Your task to perform on an android device: set an alarm Image 0: 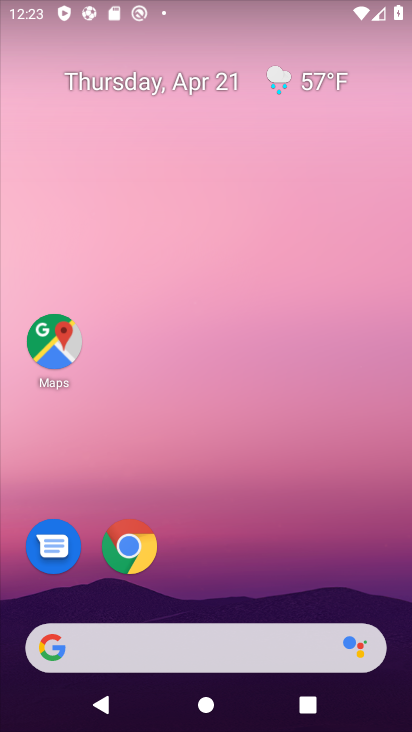
Step 0: drag from (292, 564) to (253, 108)
Your task to perform on an android device: set an alarm Image 1: 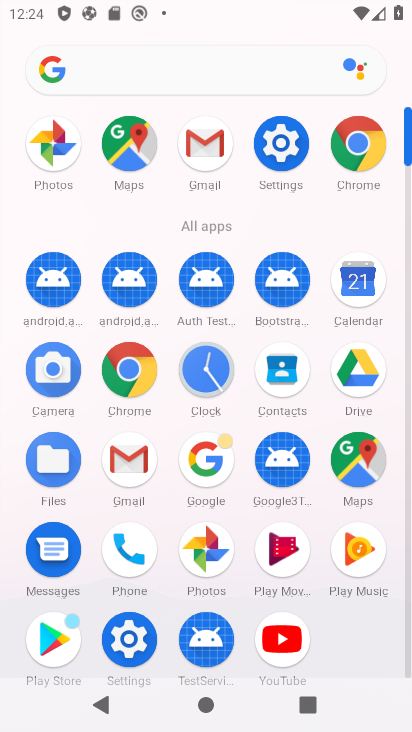
Step 1: click (207, 366)
Your task to perform on an android device: set an alarm Image 2: 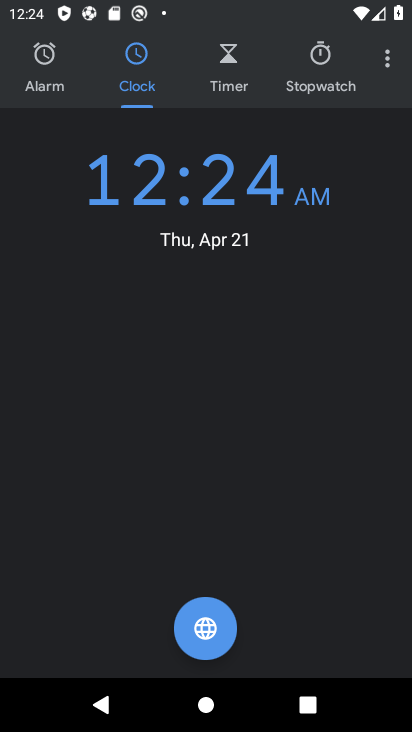
Step 2: drag from (247, 444) to (240, 232)
Your task to perform on an android device: set an alarm Image 3: 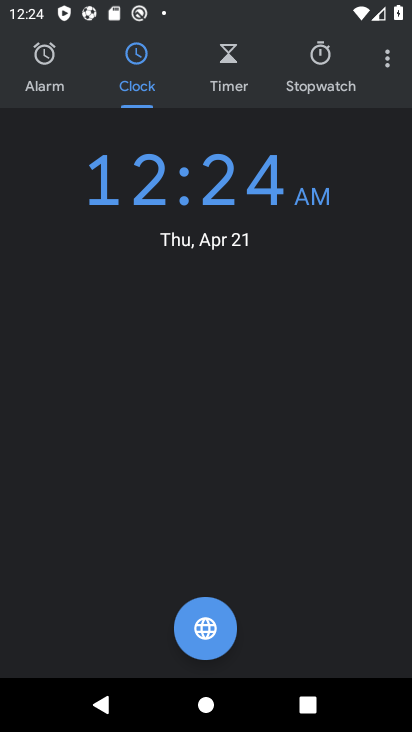
Step 3: click (41, 71)
Your task to perform on an android device: set an alarm Image 4: 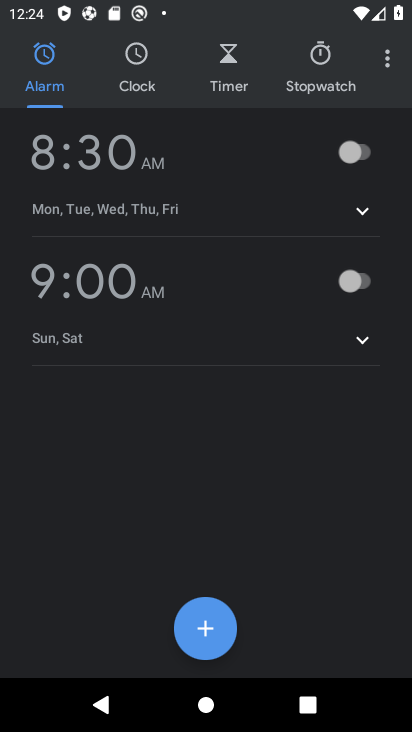
Step 4: click (351, 279)
Your task to perform on an android device: set an alarm Image 5: 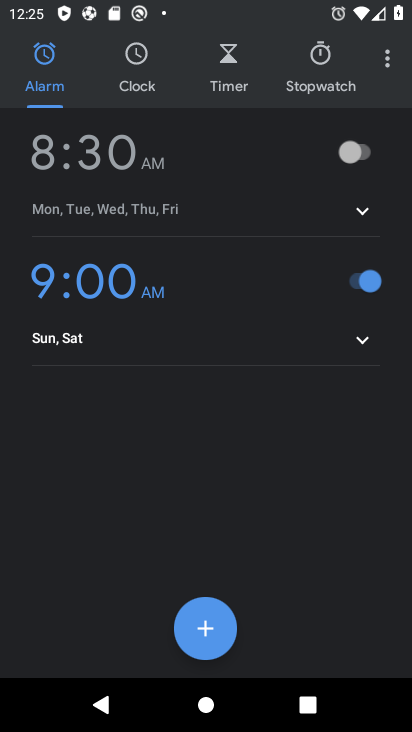
Step 5: task complete